Your task to perform on an android device: turn on location history Image 0: 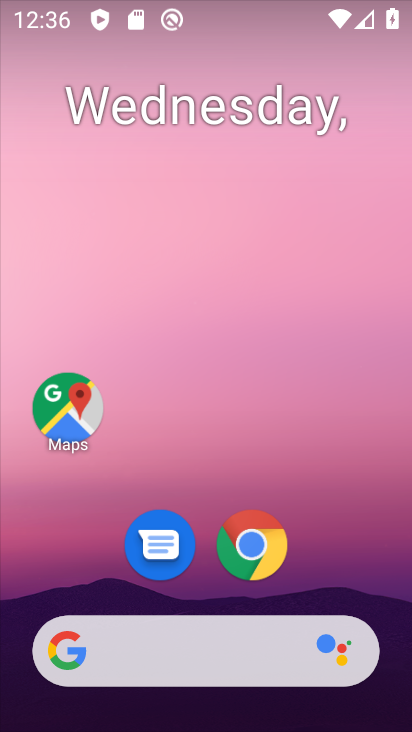
Step 0: drag from (357, 568) to (355, 154)
Your task to perform on an android device: turn on location history Image 1: 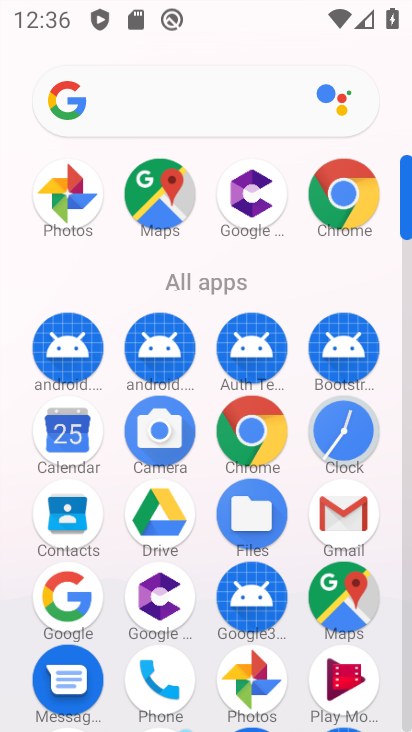
Step 1: drag from (280, 548) to (325, 229)
Your task to perform on an android device: turn on location history Image 2: 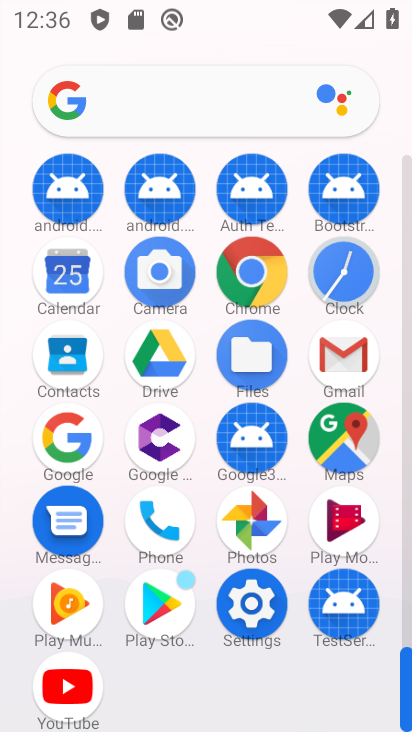
Step 2: click (247, 591)
Your task to perform on an android device: turn on location history Image 3: 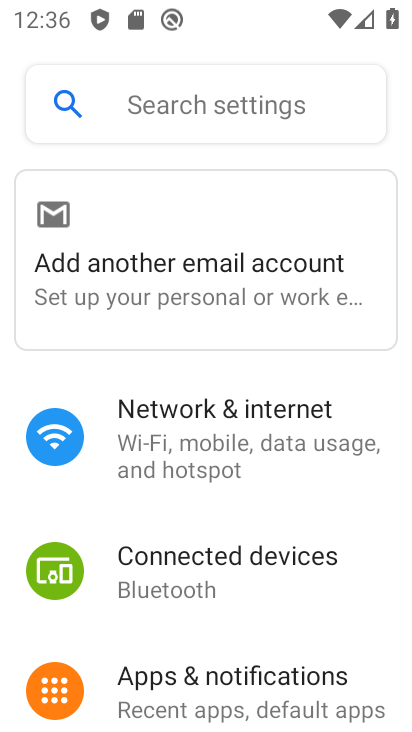
Step 3: drag from (249, 561) to (284, 157)
Your task to perform on an android device: turn on location history Image 4: 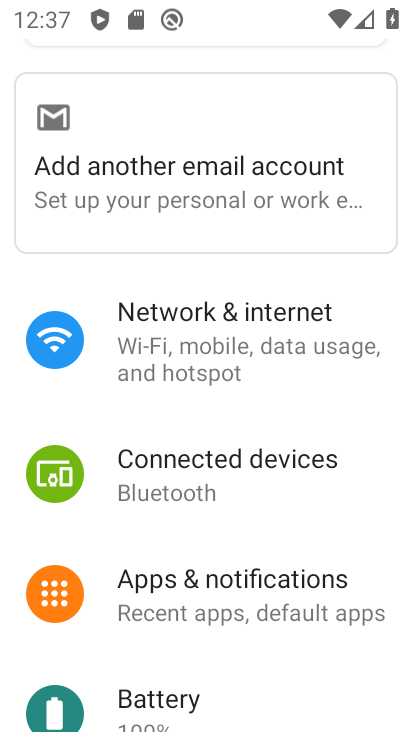
Step 4: drag from (203, 539) to (289, 182)
Your task to perform on an android device: turn on location history Image 5: 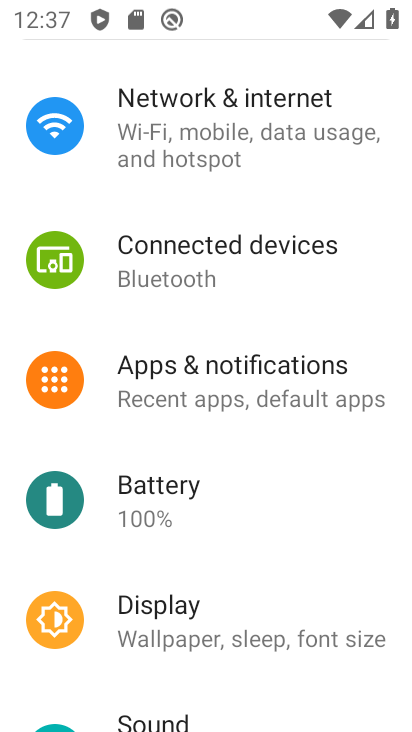
Step 5: drag from (245, 555) to (331, 210)
Your task to perform on an android device: turn on location history Image 6: 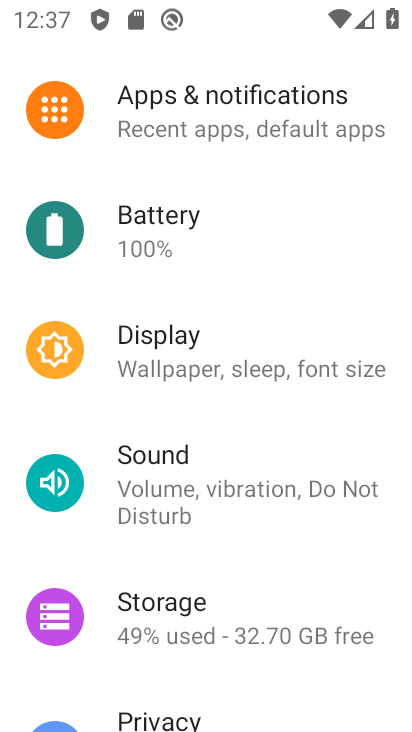
Step 6: drag from (235, 538) to (297, 208)
Your task to perform on an android device: turn on location history Image 7: 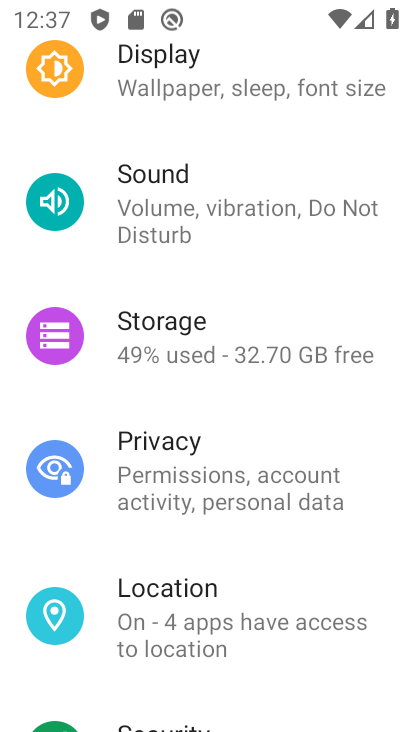
Step 7: click (203, 597)
Your task to perform on an android device: turn on location history Image 8: 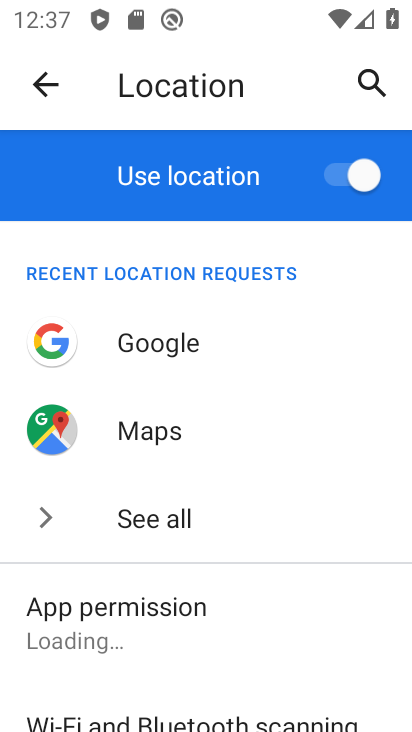
Step 8: drag from (195, 589) to (259, 198)
Your task to perform on an android device: turn on location history Image 9: 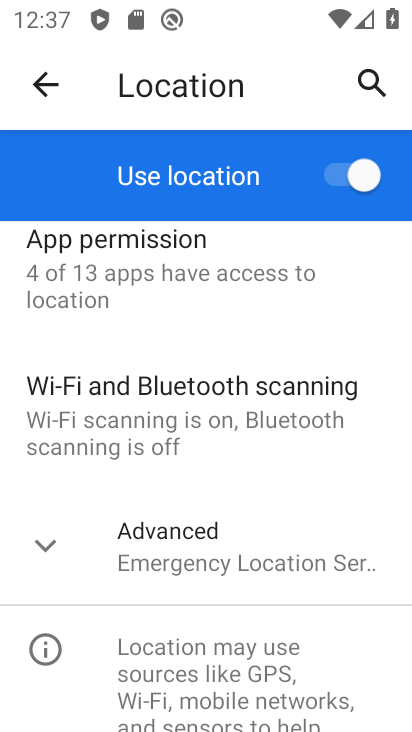
Step 9: click (200, 534)
Your task to perform on an android device: turn on location history Image 10: 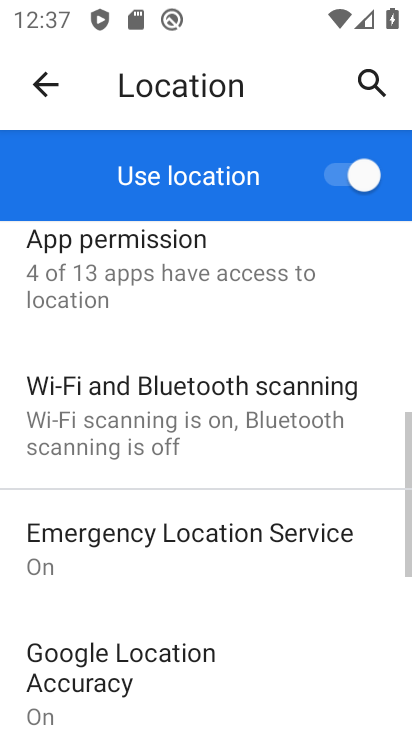
Step 10: drag from (209, 619) to (297, 188)
Your task to perform on an android device: turn on location history Image 11: 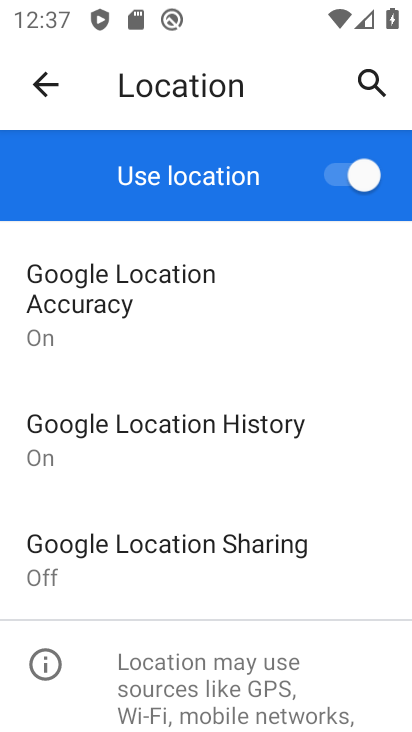
Step 11: click (217, 437)
Your task to perform on an android device: turn on location history Image 12: 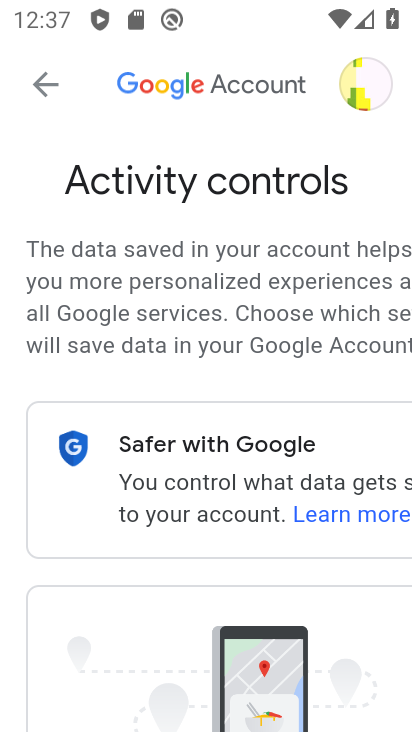
Step 12: drag from (211, 486) to (308, 93)
Your task to perform on an android device: turn on location history Image 13: 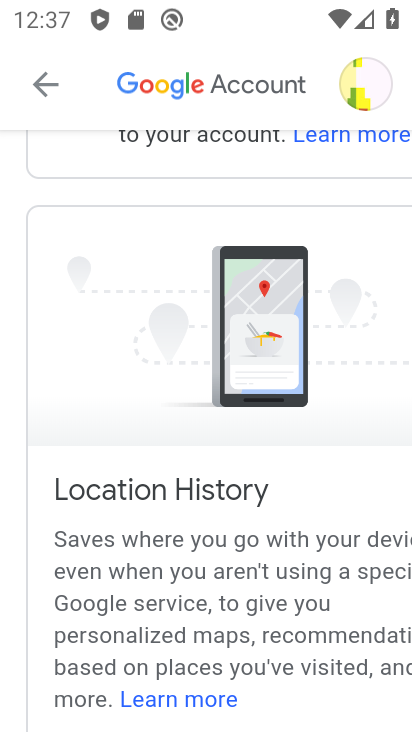
Step 13: drag from (263, 502) to (353, 104)
Your task to perform on an android device: turn on location history Image 14: 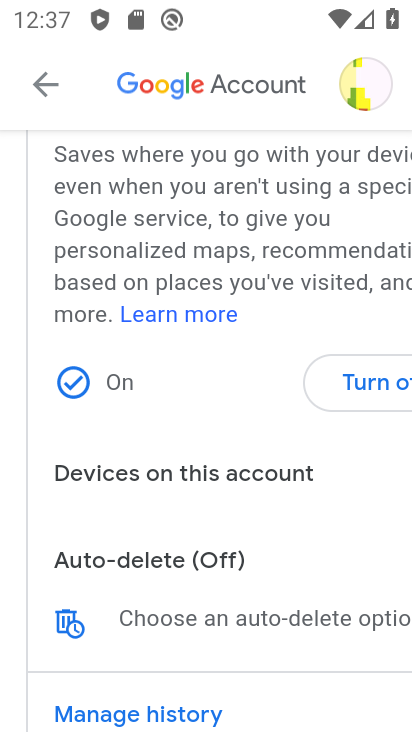
Step 14: click (333, 380)
Your task to perform on an android device: turn on location history Image 15: 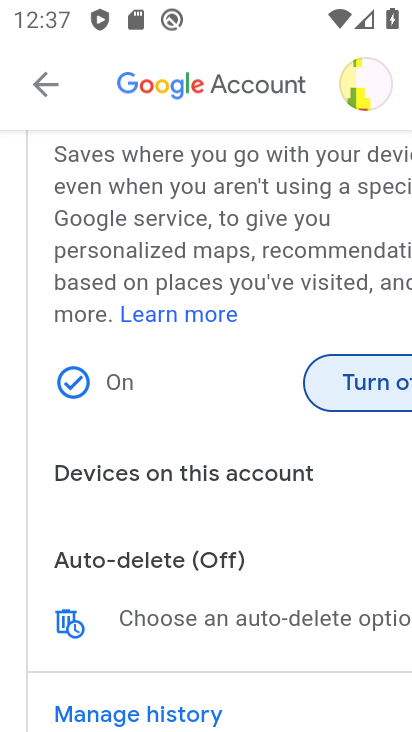
Step 15: click (363, 374)
Your task to perform on an android device: turn on location history Image 16: 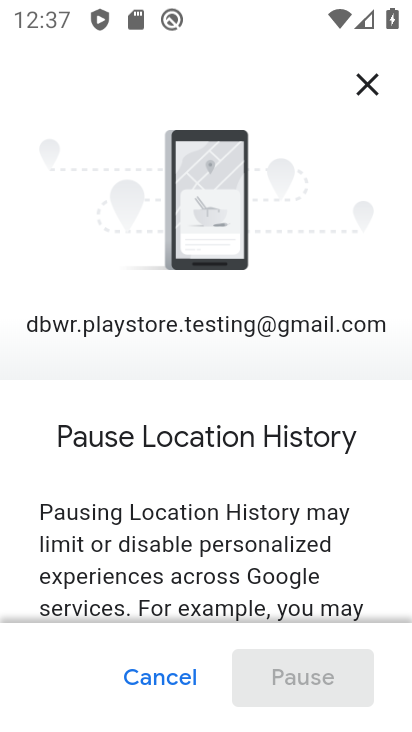
Step 16: drag from (329, 493) to (369, 97)
Your task to perform on an android device: turn on location history Image 17: 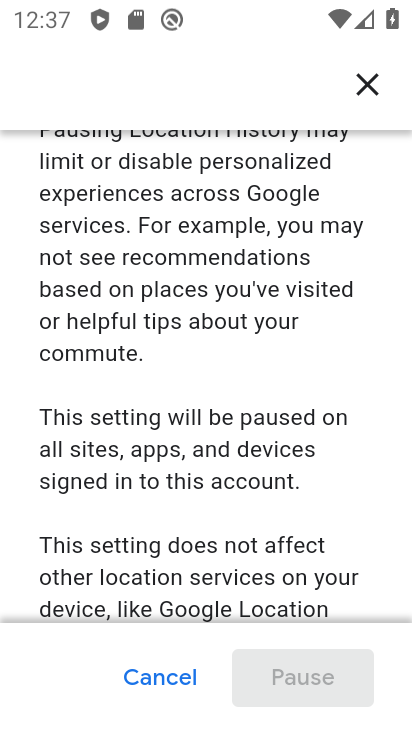
Step 17: drag from (276, 447) to (335, 133)
Your task to perform on an android device: turn on location history Image 18: 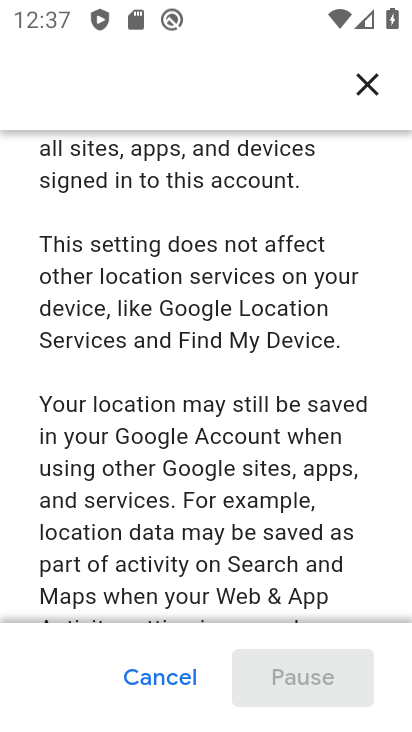
Step 18: drag from (222, 437) to (290, 86)
Your task to perform on an android device: turn on location history Image 19: 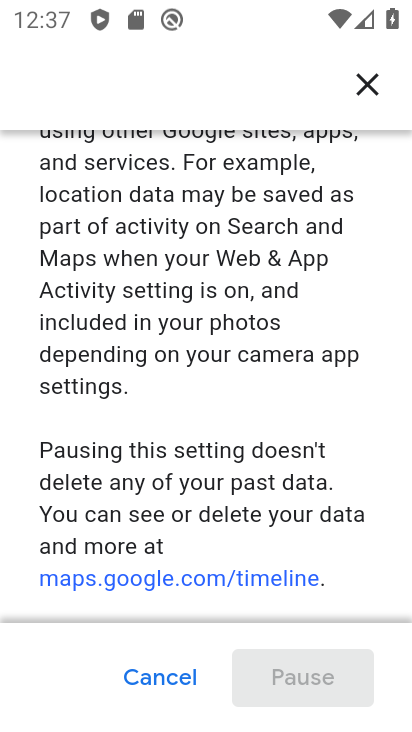
Step 19: drag from (152, 458) to (206, 144)
Your task to perform on an android device: turn on location history Image 20: 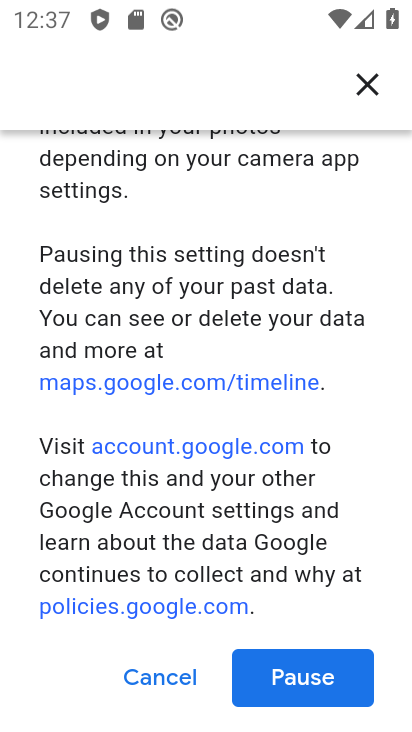
Step 20: click (339, 680)
Your task to perform on an android device: turn on location history Image 21: 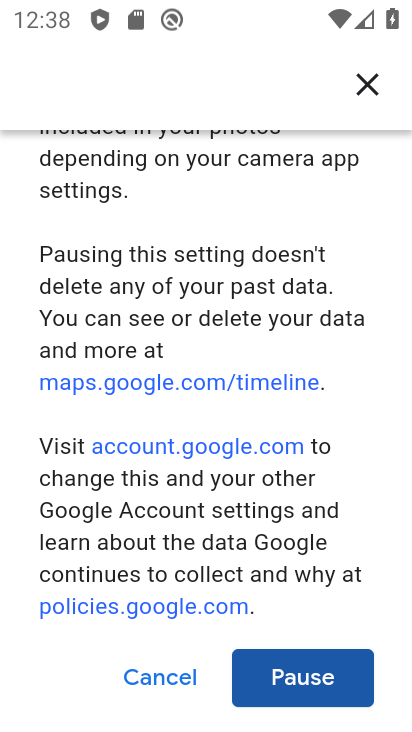
Step 21: click (295, 686)
Your task to perform on an android device: turn on location history Image 22: 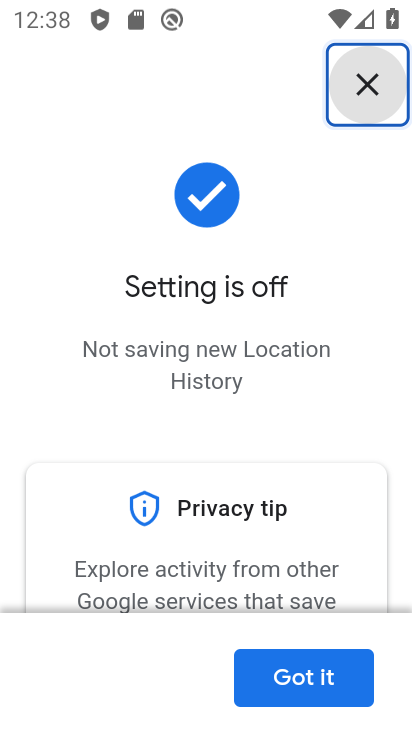
Step 22: task complete